Your task to perform on an android device: When is my next meeting? Image 0: 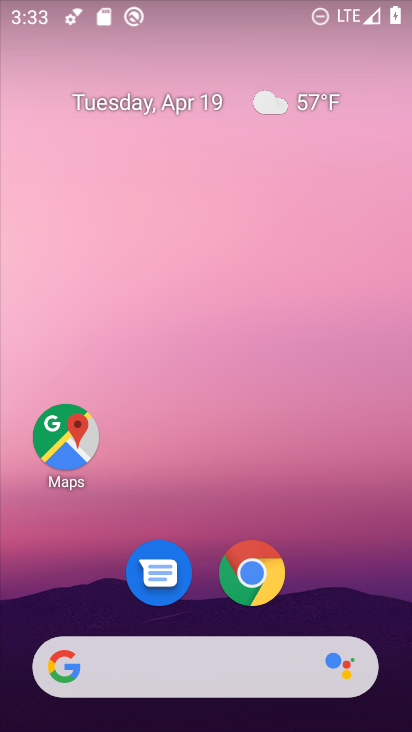
Step 0: drag from (344, 598) to (238, 15)
Your task to perform on an android device: When is my next meeting? Image 1: 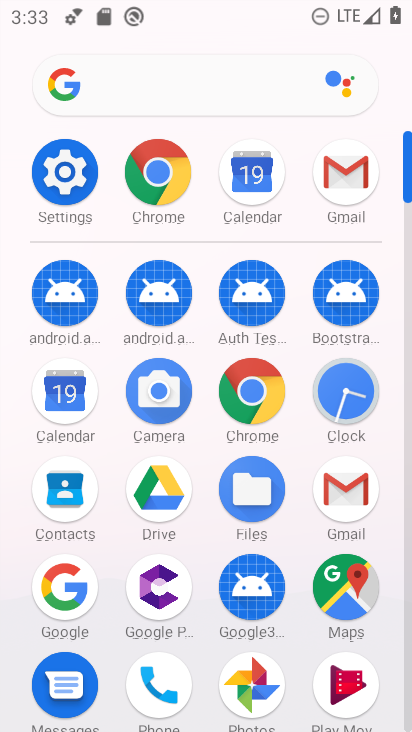
Step 1: click (254, 182)
Your task to perform on an android device: When is my next meeting? Image 2: 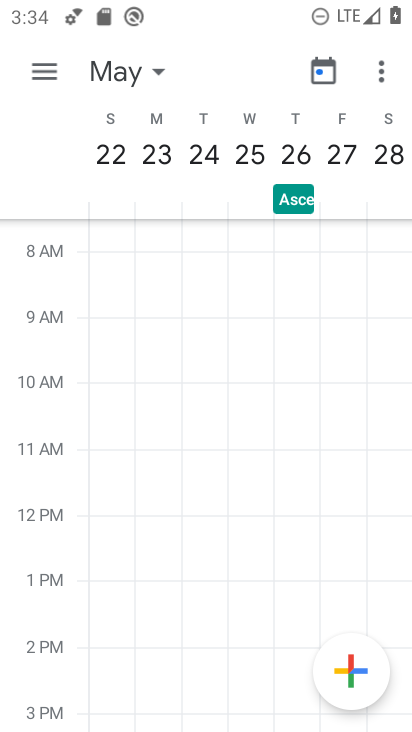
Step 2: click (319, 71)
Your task to perform on an android device: When is my next meeting? Image 3: 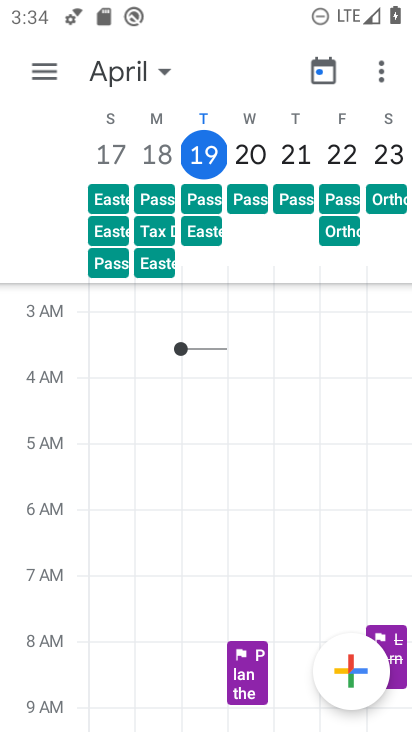
Step 3: click (44, 76)
Your task to perform on an android device: When is my next meeting? Image 4: 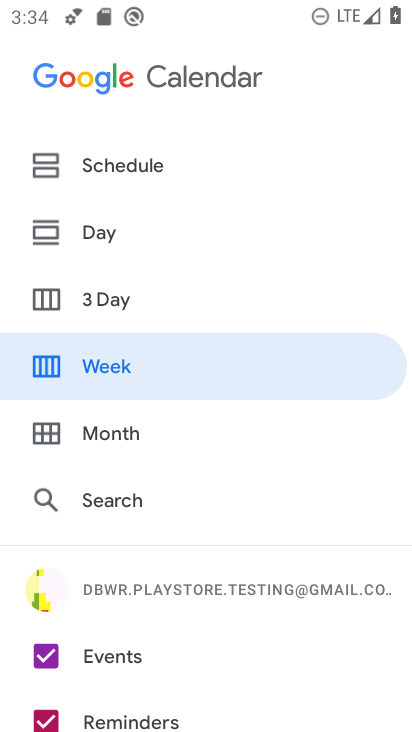
Step 4: click (86, 164)
Your task to perform on an android device: When is my next meeting? Image 5: 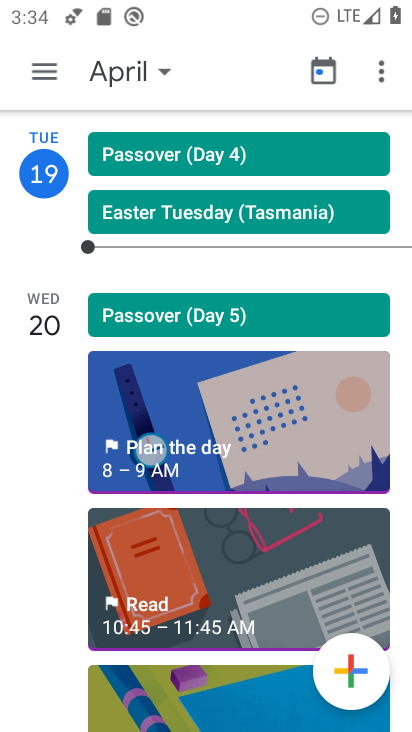
Step 5: click (168, 72)
Your task to perform on an android device: When is my next meeting? Image 6: 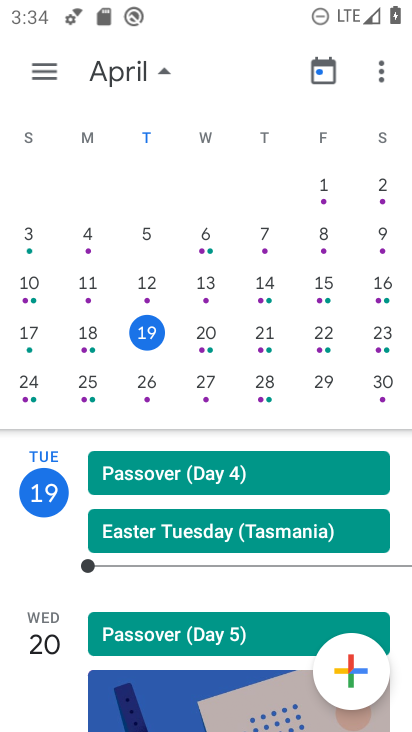
Step 6: drag from (135, 537) to (126, 277)
Your task to perform on an android device: When is my next meeting? Image 7: 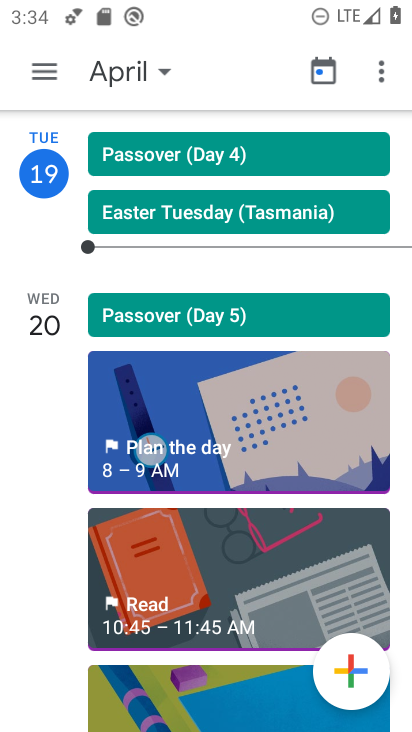
Step 7: drag from (145, 541) to (149, 373)
Your task to perform on an android device: When is my next meeting? Image 8: 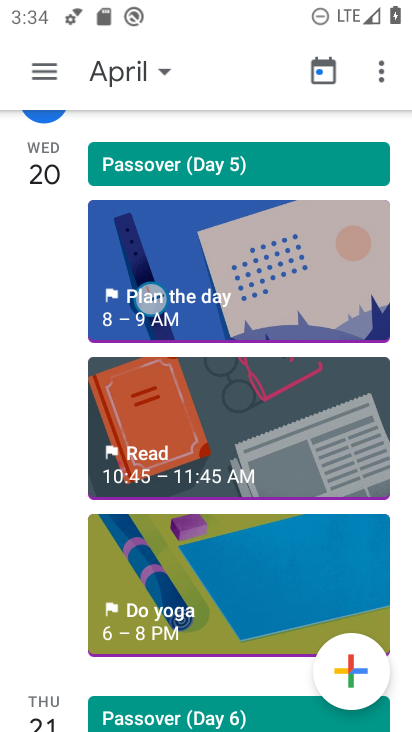
Step 8: drag from (153, 544) to (143, 195)
Your task to perform on an android device: When is my next meeting? Image 9: 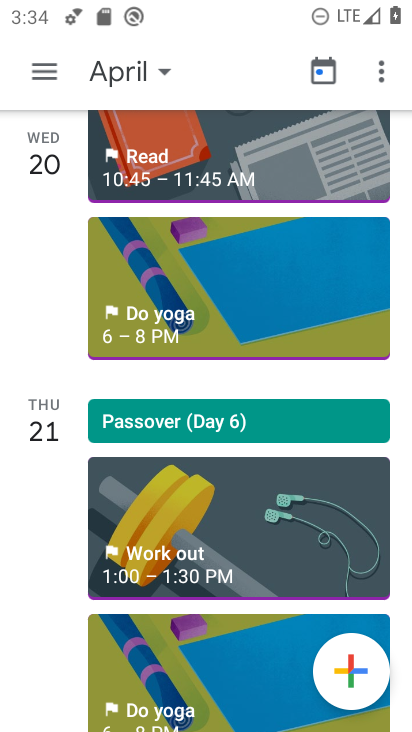
Step 9: drag from (168, 549) to (138, 245)
Your task to perform on an android device: When is my next meeting? Image 10: 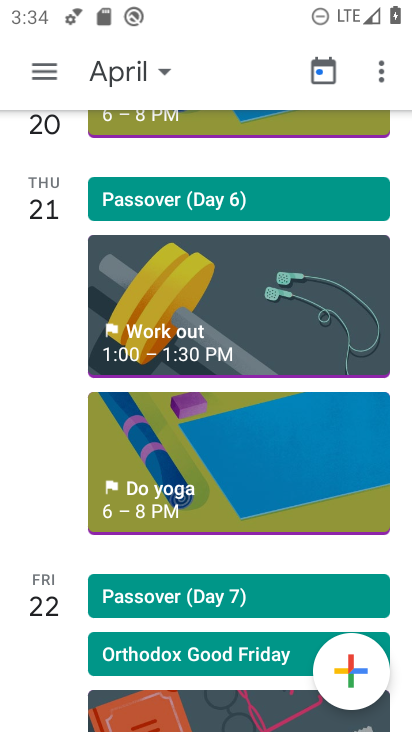
Step 10: drag from (146, 558) to (129, 243)
Your task to perform on an android device: When is my next meeting? Image 11: 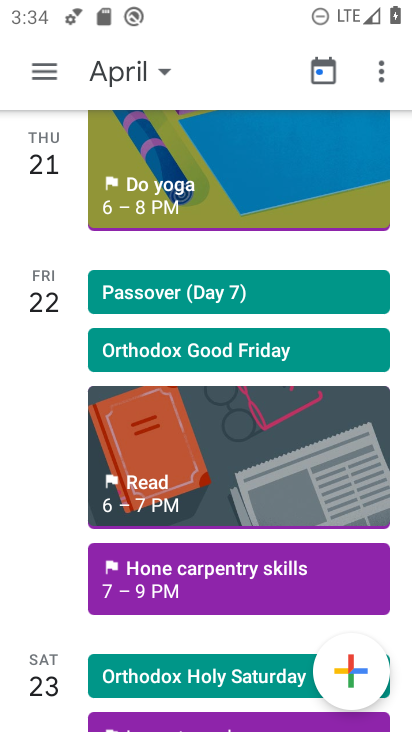
Step 11: drag from (134, 529) to (133, 288)
Your task to perform on an android device: When is my next meeting? Image 12: 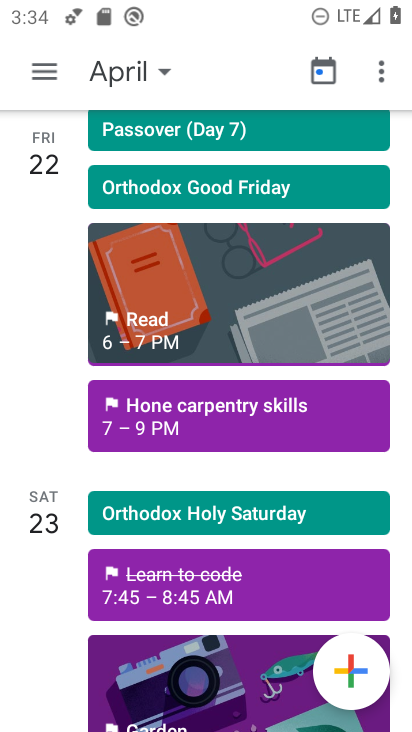
Step 12: drag from (162, 587) to (142, 268)
Your task to perform on an android device: When is my next meeting? Image 13: 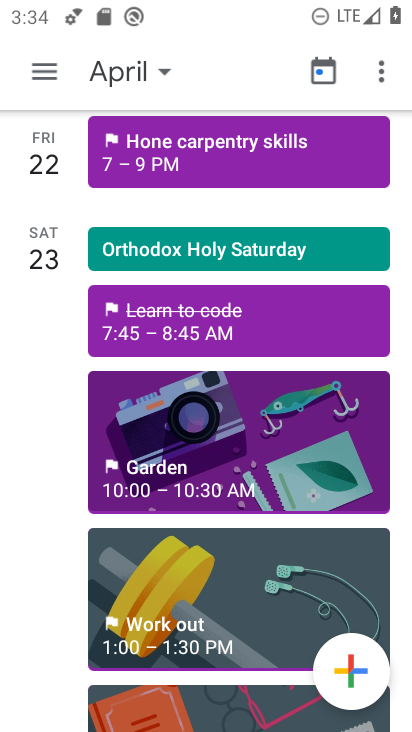
Step 13: drag from (152, 590) to (131, 314)
Your task to perform on an android device: When is my next meeting? Image 14: 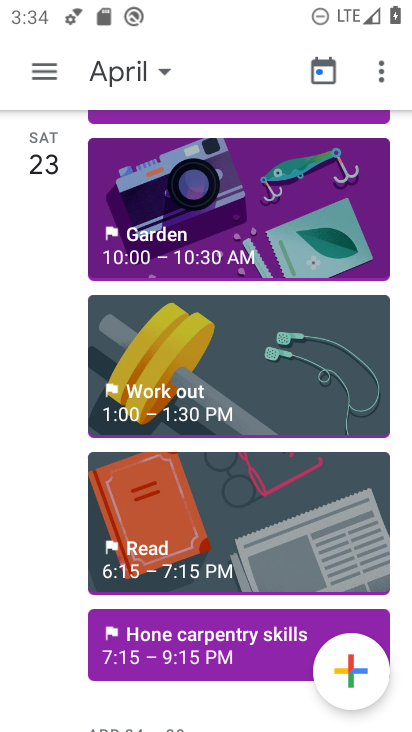
Step 14: drag from (144, 622) to (125, 325)
Your task to perform on an android device: When is my next meeting? Image 15: 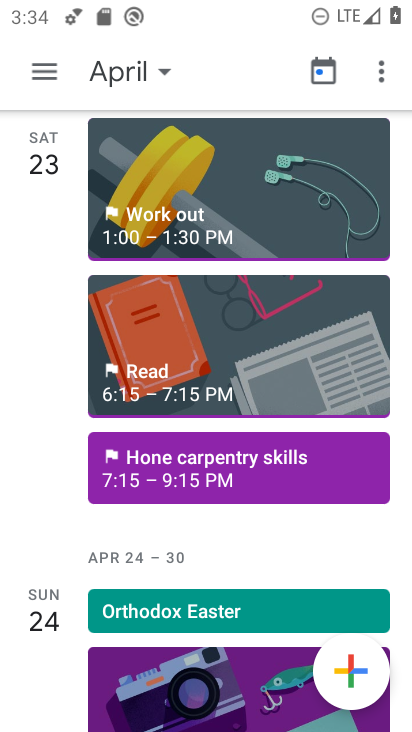
Step 15: drag from (207, 646) to (151, 319)
Your task to perform on an android device: When is my next meeting? Image 16: 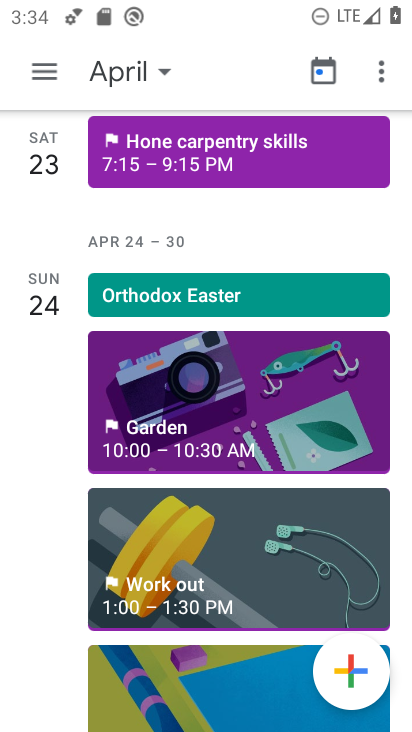
Step 16: drag from (166, 585) to (157, 312)
Your task to perform on an android device: When is my next meeting? Image 17: 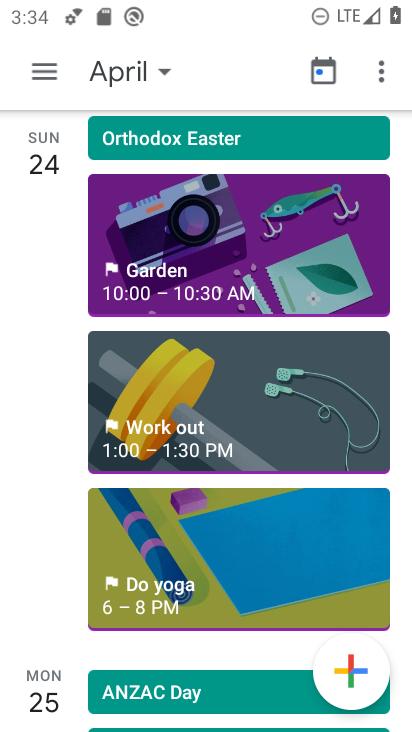
Step 17: drag from (165, 653) to (144, 339)
Your task to perform on an android device: When is my next meeting? Image 18: 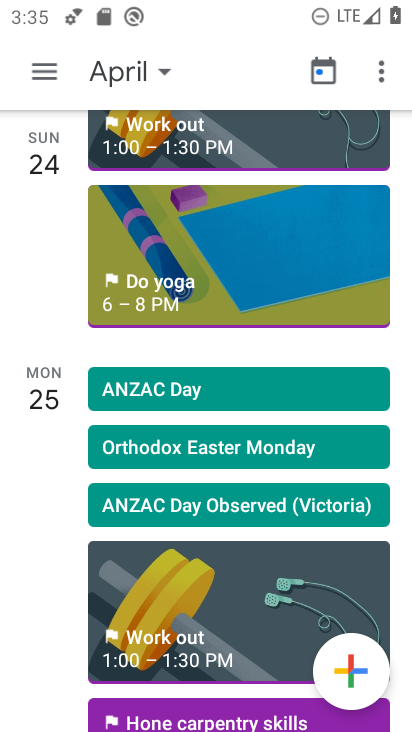
Step 18: drag from (170, 557) to (153, 324)
Your task to perform on an android device: When is my next meeting? Image 19: 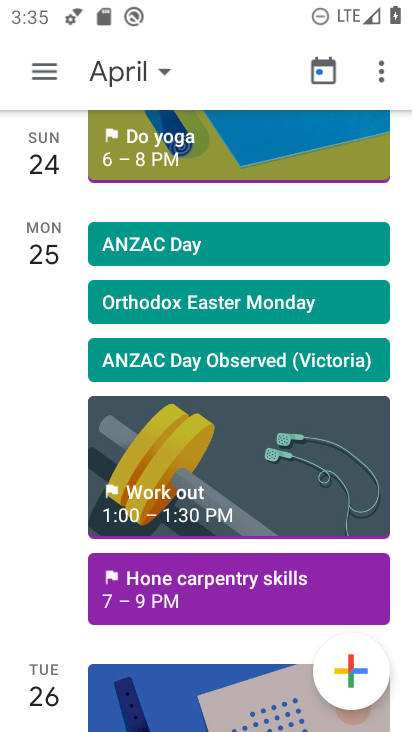
Step 19: drag from (174, 657) to (161, 417)
Your task to perform on an android device: When is my next meeting? Image 20: 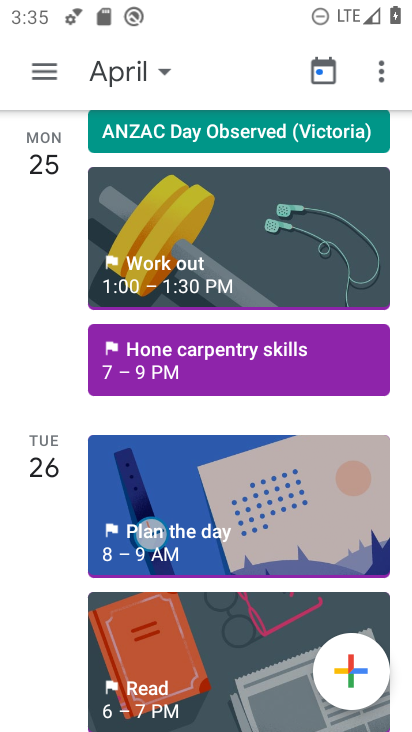
Step 20: drag from (201, 353) to (208, 555)
Your task to perform on an android device: When is my next meeting? Image 21: 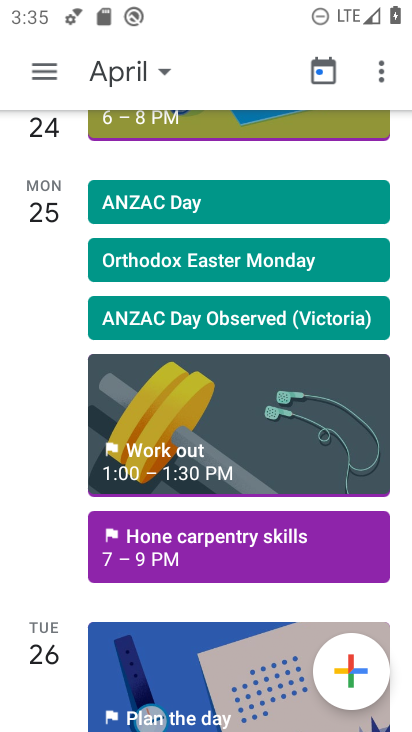
Step 21: drag from (158, 294) to (176, 636)
Your task to perform on an android device: When is my next meeting? Image 22: 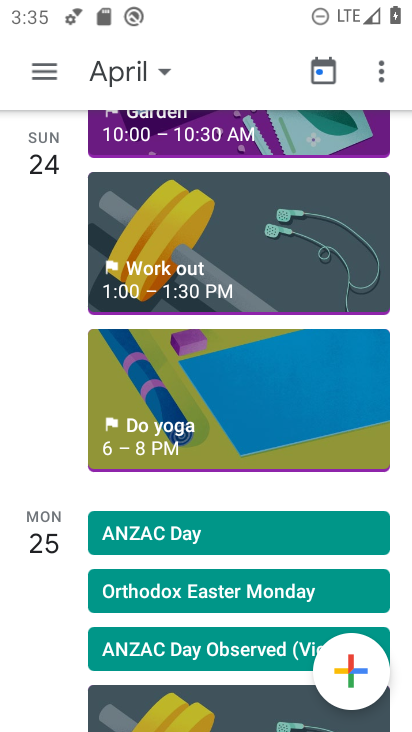
Step 22: drag from (196, 292) to (197, 594)
Your task to perform on an android device: When is my next meeting? Image 23: 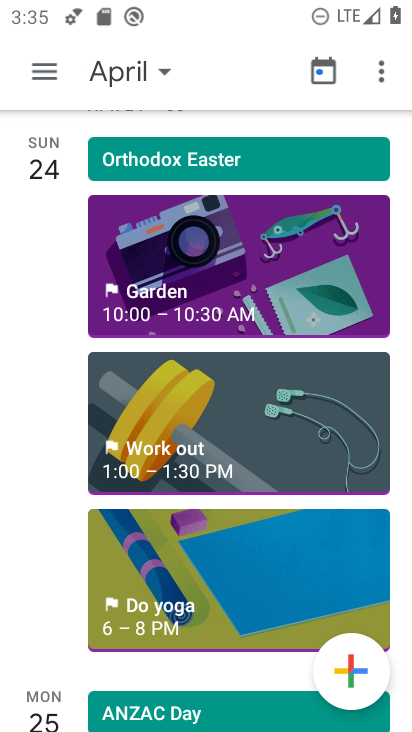
Step 23: drag from (145, 250) to (156, 613)
Your task to perform on an android device: When is my next meeting? Image 24: 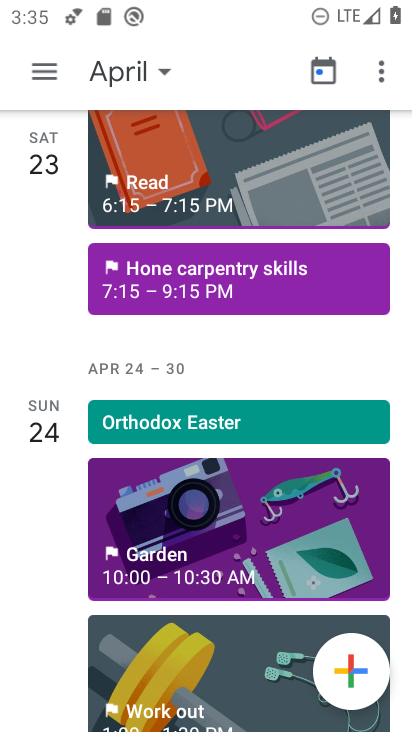
Step 24: drag from (177, 382) to (188, 606)
Your task to perform on an android device: When is my next meeting? Image 25: 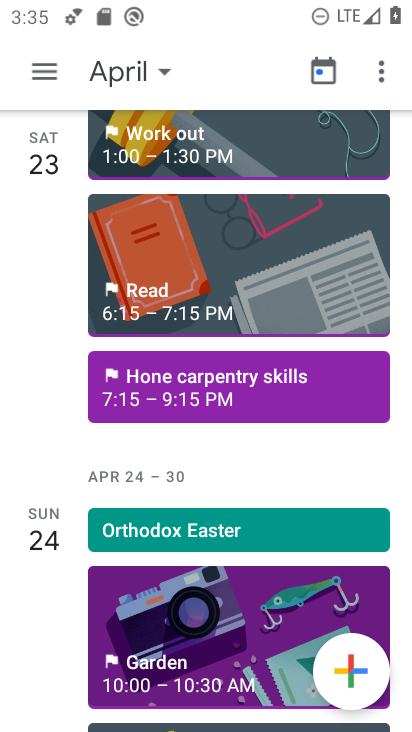
Step 25: drag from (181, 205) to (197, 547)
Your task to perform on an android device: When is my next meeting? Image 26: 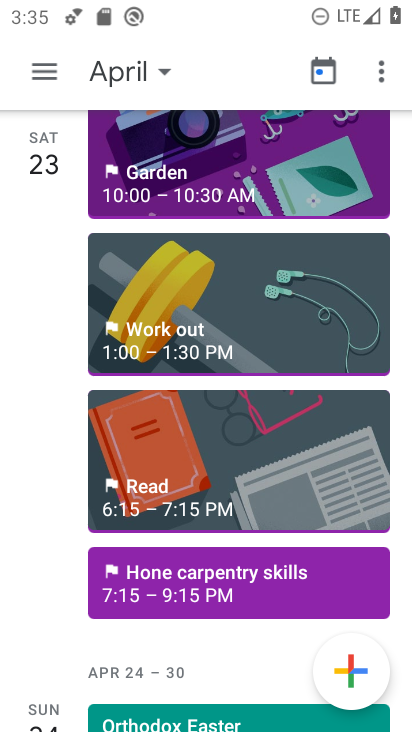
Step 26: drag from (162, 215) to (170, 600)
Your task to perform on an android device: When is my next meeting? Image 27: 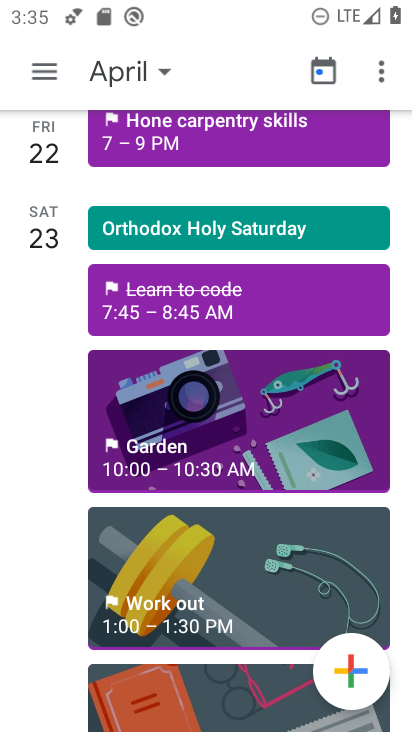
Step 27: drag from (135, 288) to (149, 575)
Your task to perform on an android device: When is my next meeting? Image 28: 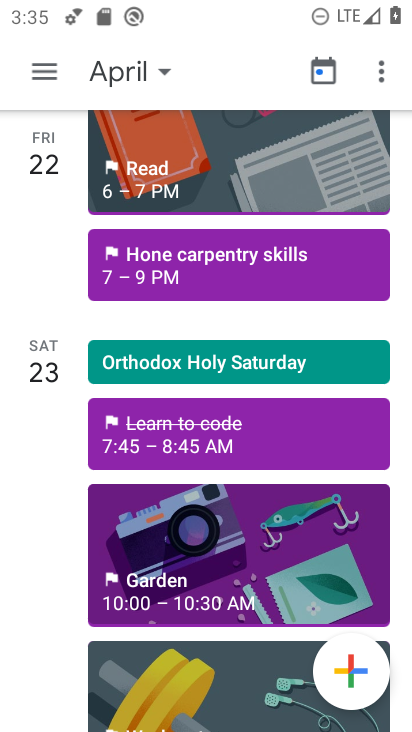
Step 28: drag from (184, 183) to (184, 494)
Your task to perform on an android device: When is my next meeting? Image 29: 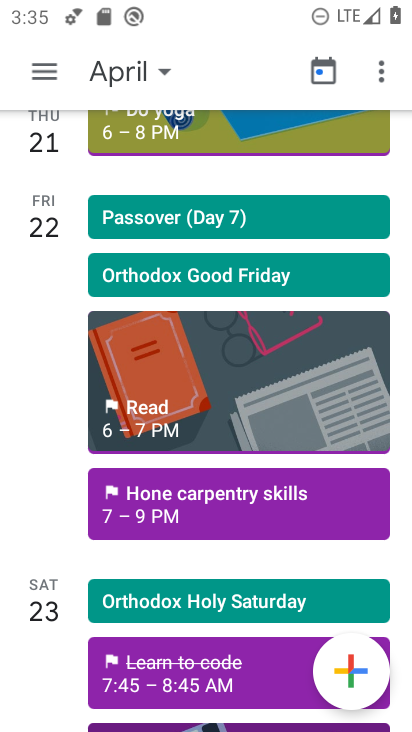
Step 29: drag from (194, 255) to (191, 528)
Your task to perform on an android device: When is my next meeting? Image 30: 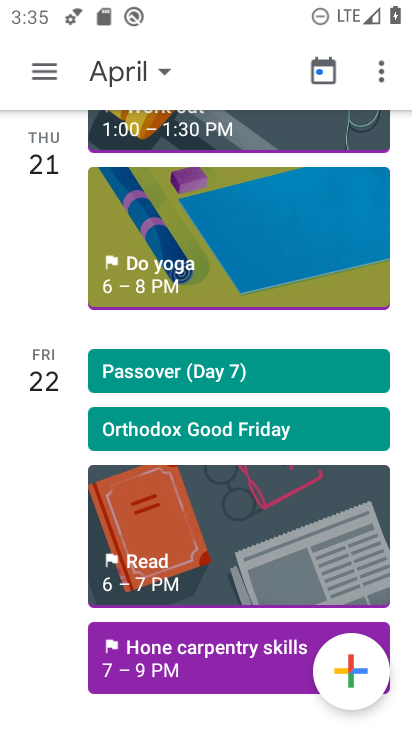
Step 30: drag from (230, 193) to (235, 543)
Your task to perform on an android device: When is my next meeting? Image 31: 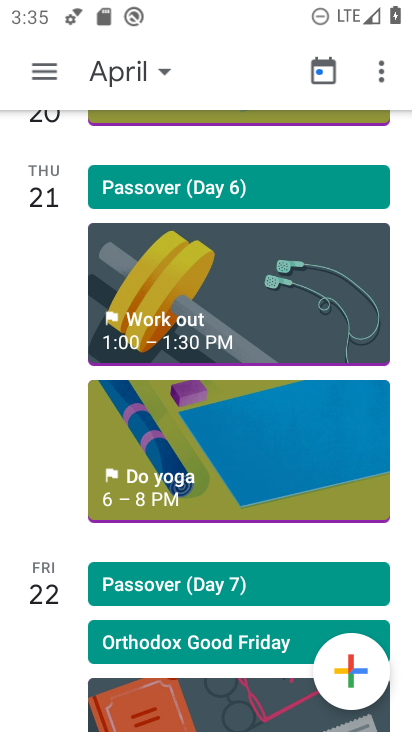
Step 31: drag from (222, 317) to (219, 578)
Your task to perform on an android device: When is my next meeting? Image 32: 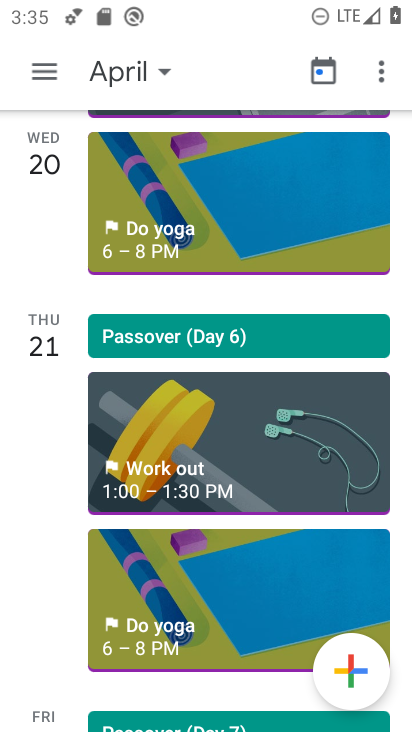
Step 32: drag from (227, 182) to (223, 574)
Your task to perform on an android device: When is my next meeting? Image 33: 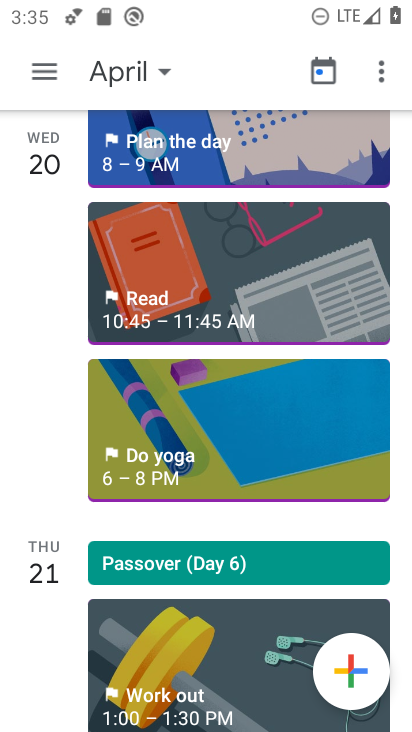
Step 33: drag from (213, 387) to (216, 574)
Your task to perform on an android device: When is my next meeting? Image 34: 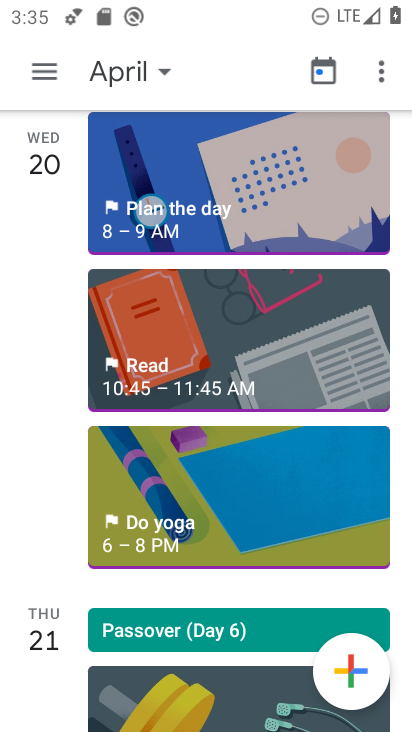
Step 34: drag from (242, 391) to (229, 613)
Your task to perform on an android device: When is my next meeting? Image 35: 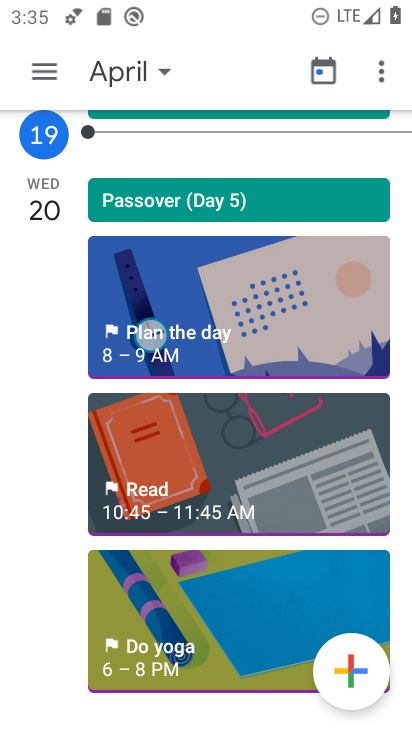
Step 35: drag from (205, 307) to (216, 393)
Your task to perform on an android device: When is my next meeting? Image 36: 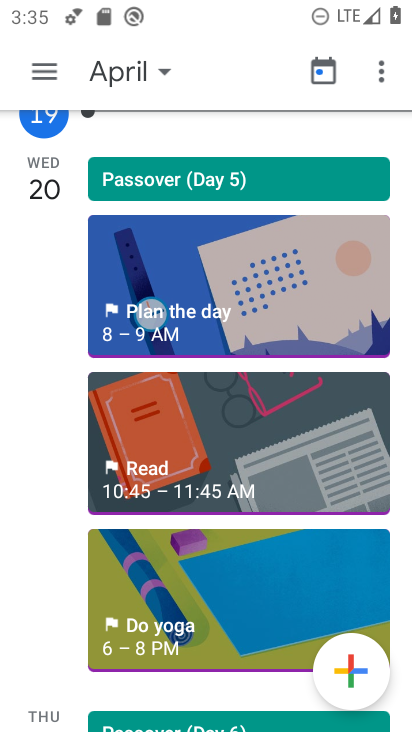
Step 36: click (39, 72)
Your task to perform on an android device: When is my next meeting? Image 37: 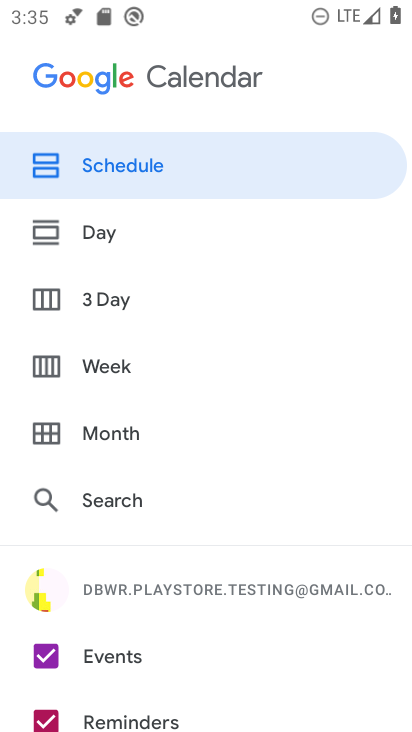
Step 37: drag from (140, 606) to (152, 380)
Your task to perform on an android device: When is my next meeting? Image 38: 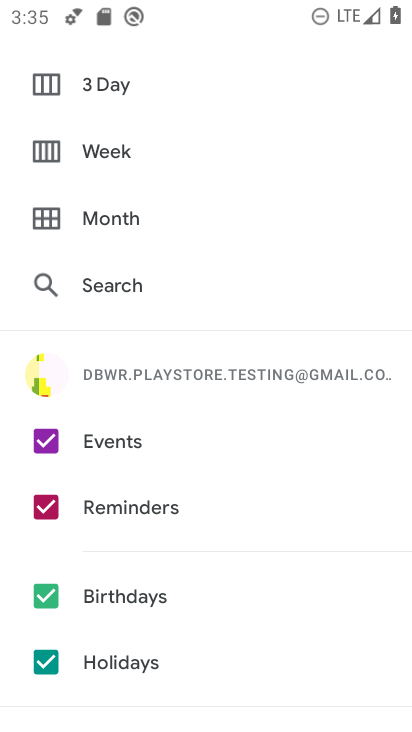
Step 38: click (56, 507)
Your task to perform on an android device: When is my next meeting? Image 39: 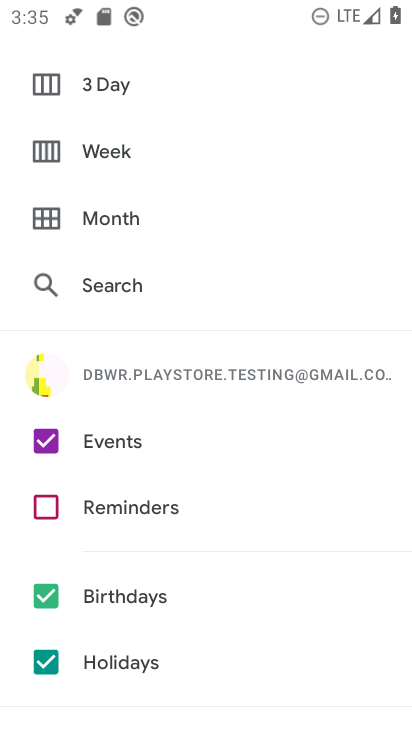
Step 39: click (51, 589)
Your task to perform on an android device: When is my next meeting? Image 40: 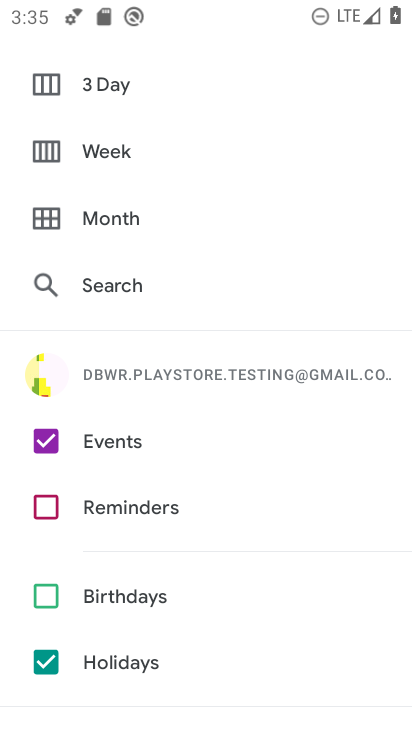
Step 40: click (44, 659)
Your task to perform on an android device: When is my next meeting? Image 41: 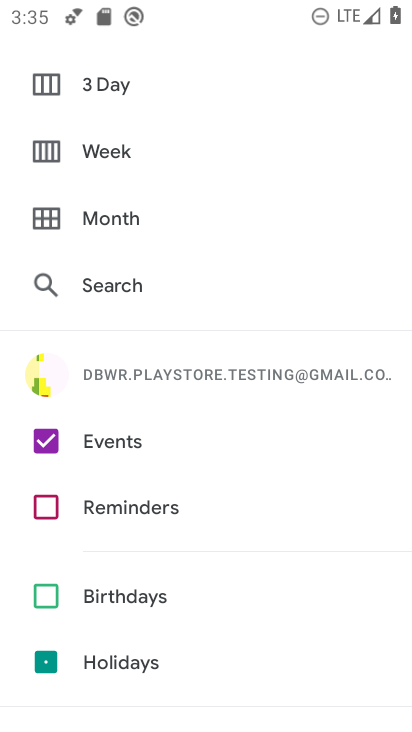
Step 41: drag from (175, 614) to (191, 395)
Your task to perform on an android device: When is my next meeting? Image 42: 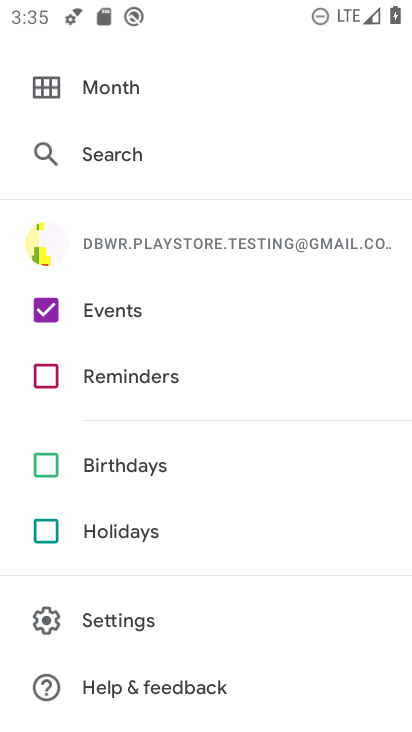
Step 42: drag from (234, 274) to (242, 651)
Your task to perform on an android device: When is my next meeting? Image 43: 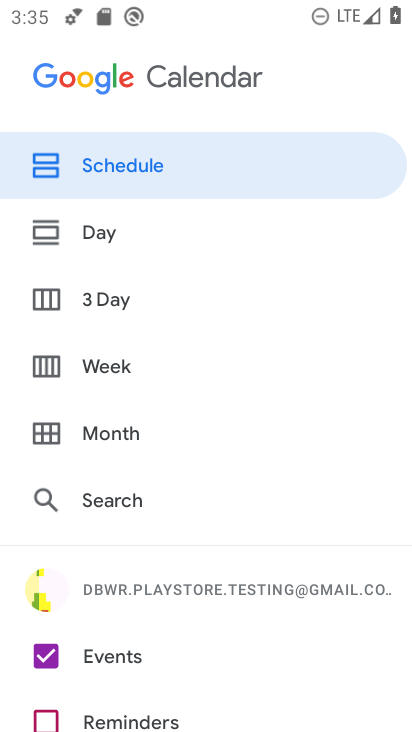
Step 43: click (86, 178)
Your task to perform on an android device: When is my next meeting? Image 44: 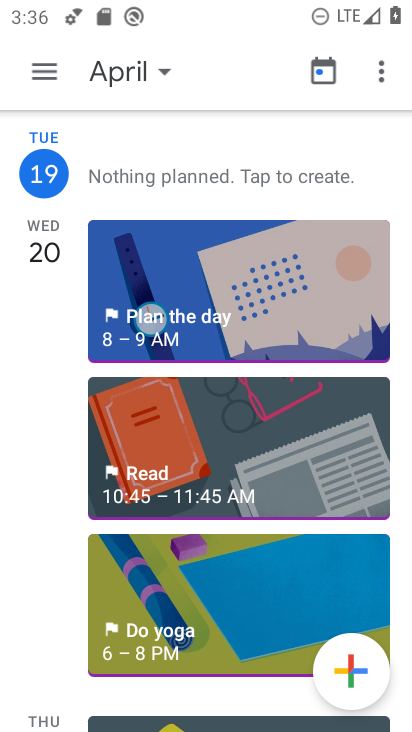
Step 44: drag from (235, 468) to (244, 380)
Your task to perform on an android device: When is my next meeting? Image 45: 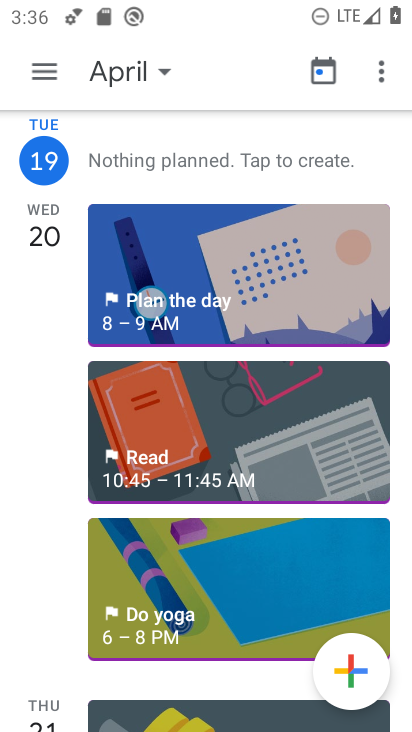
Step 45: drag from (216, 520) to (208, 230)
Your task to perform on an android device: When is my next meeting? Image 46: 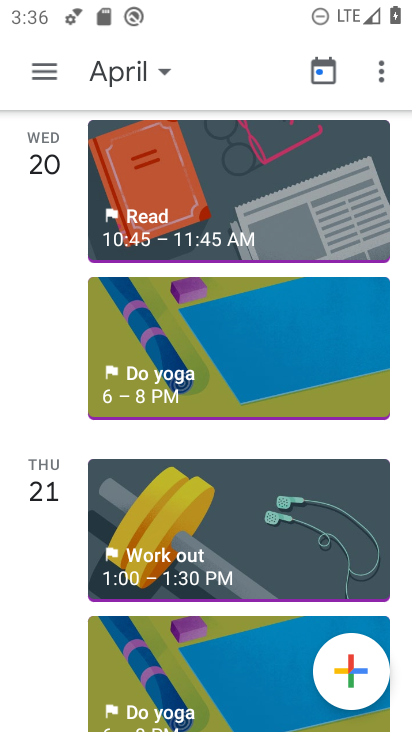
Step 46: drag from (191, 469) to (192, 250)
Your task to perform on an android device: When is my next meeting? Image 47: 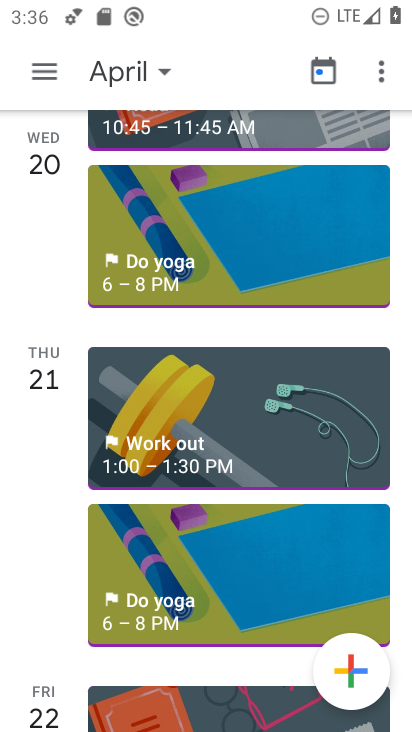
Step 47: drag from (178, 589) to (188, 657)
Your task to perform on an android device: When is my next meeting? Image 48: 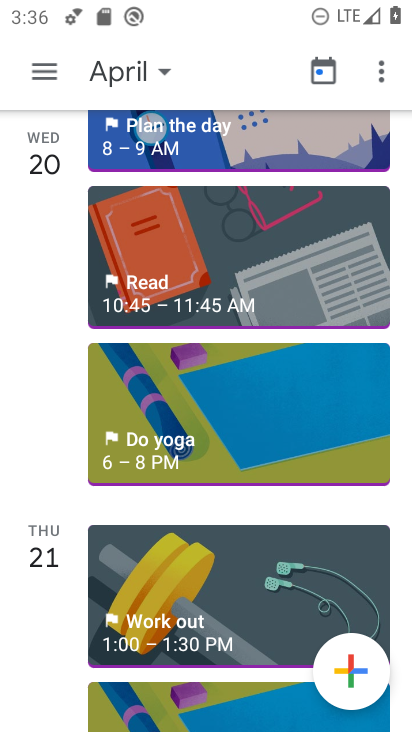
Step 48: click (183, 153)
Your task to perform on an android device: When is my next meeting? Image 49: 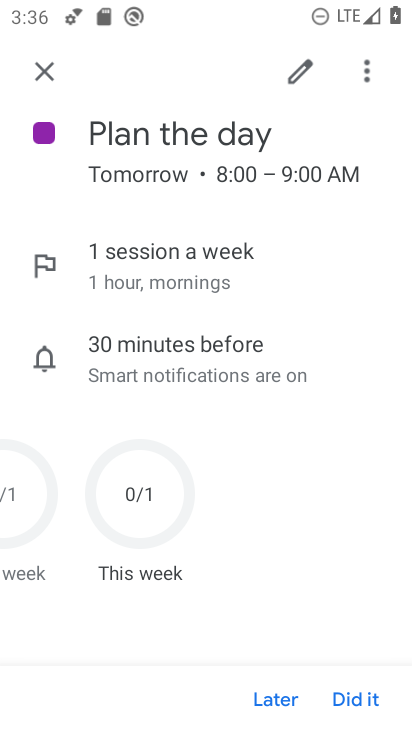
Step 49: task complete